Your task to perform on an android device: add a contact Image 0: 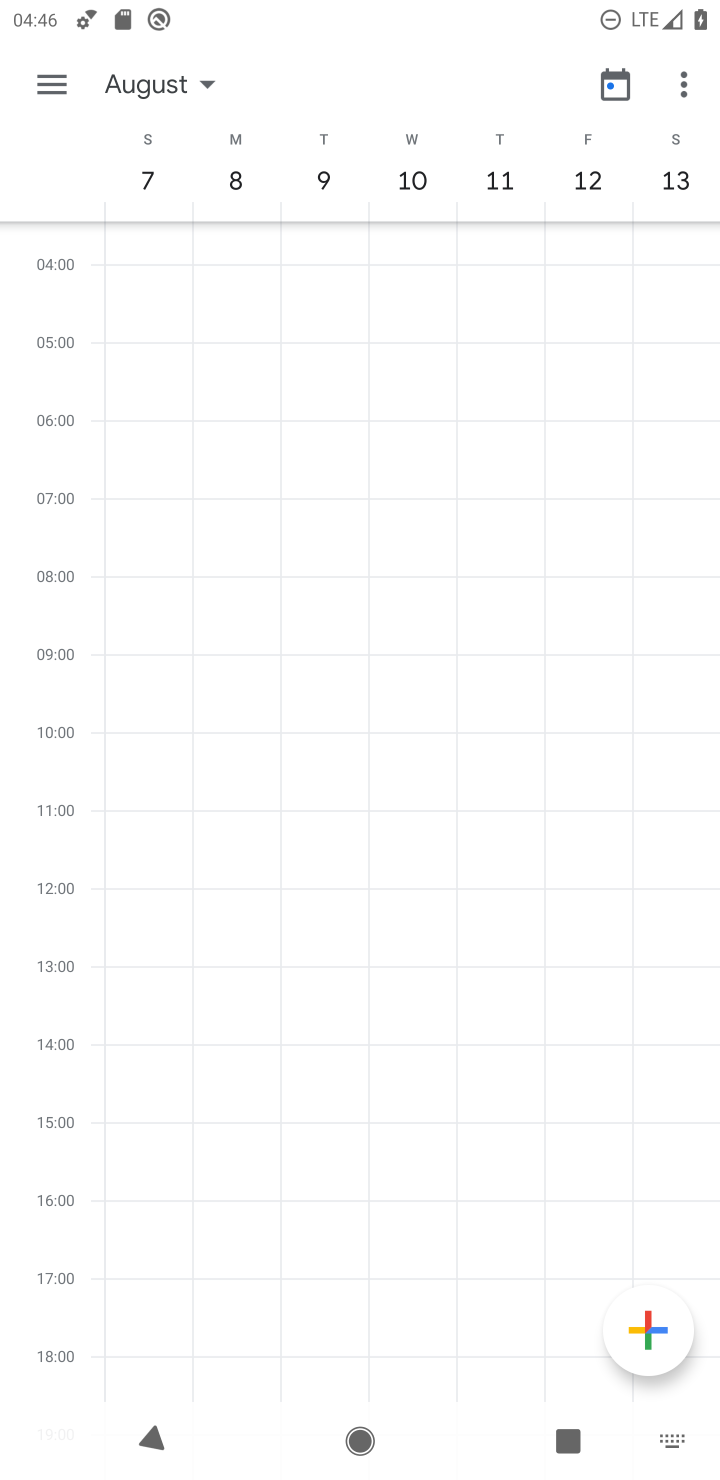
Step 0: press home button
Your task to perform on an android device: add a contact Image 1: 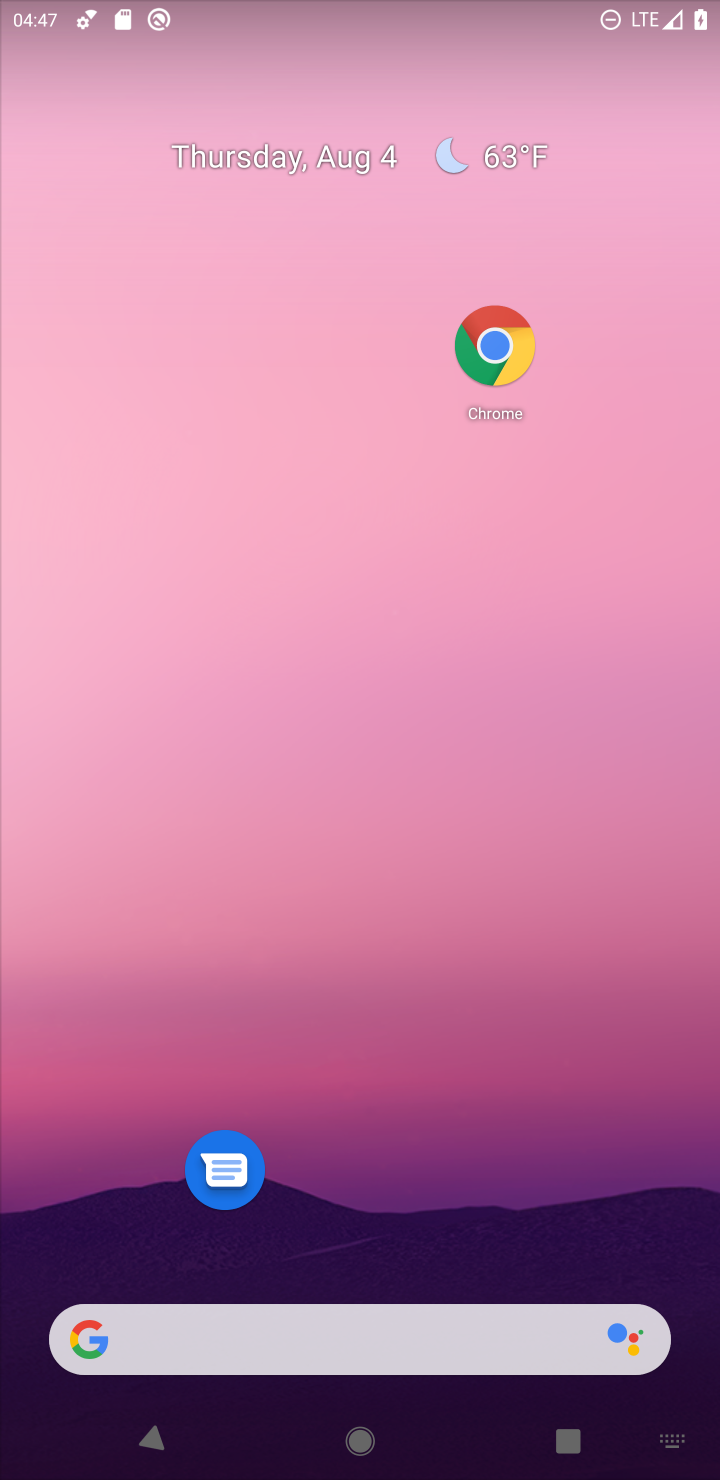
Step 1: drag from (630, 1225) to (544, 182)
Your task to perform on an android device: add a contact Image 2: 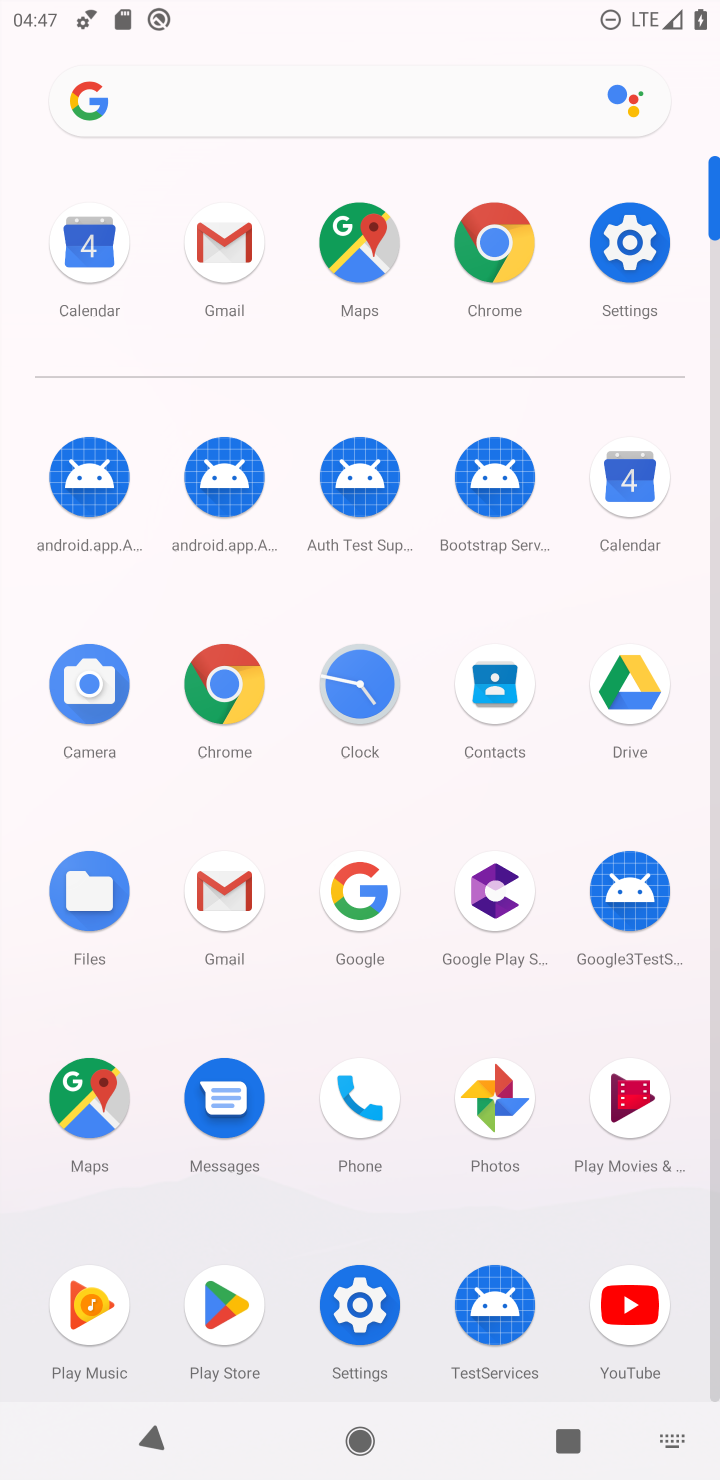
Step 2: click (507, 710)
Your task to perform on an android device: add a contact Image 3: 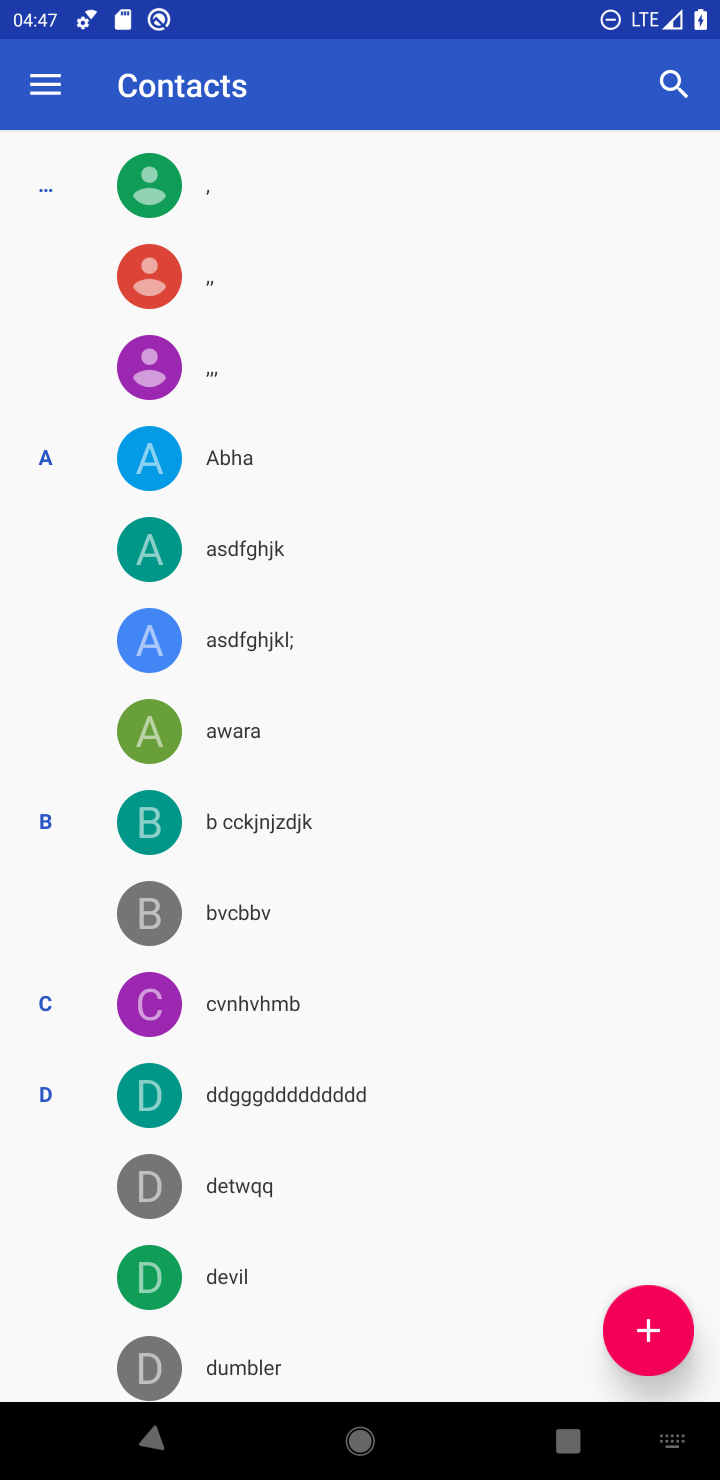
Step 3: click (650, 1331)
Your task to perform on an android device: add a contact Image 4: 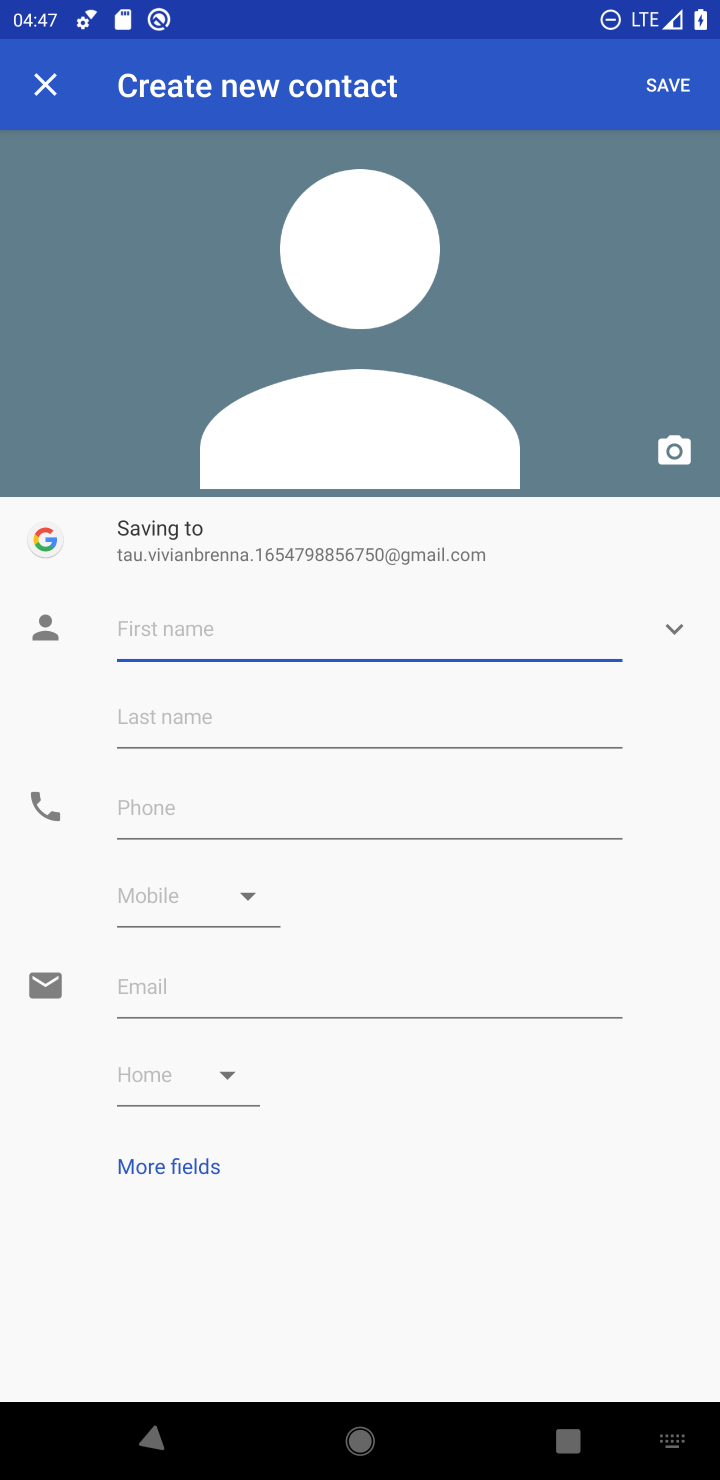
Step 4: click (320, 624)
Your task to perform on an android device: add a contact Image 5: 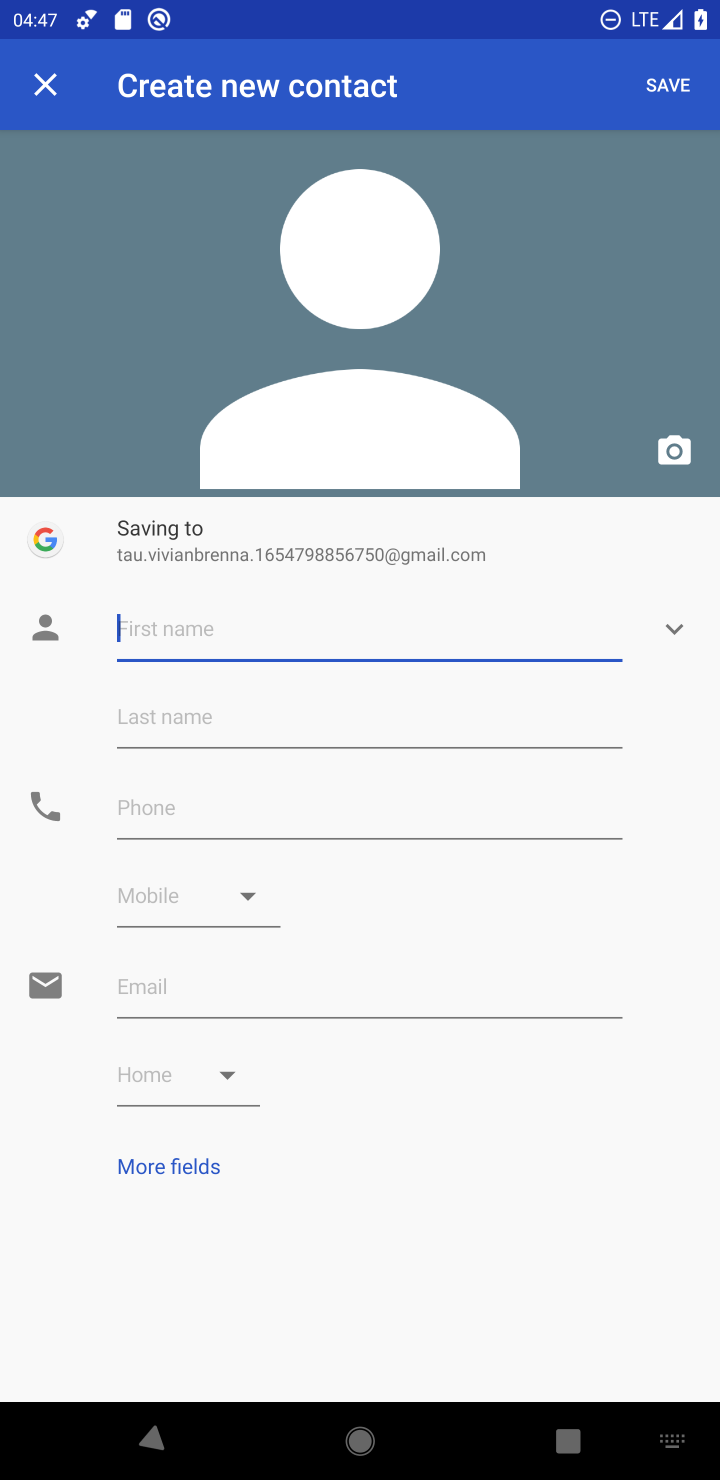
Step 5: type "gghc"
Your task to perform on an android device: add a contact Image 6: 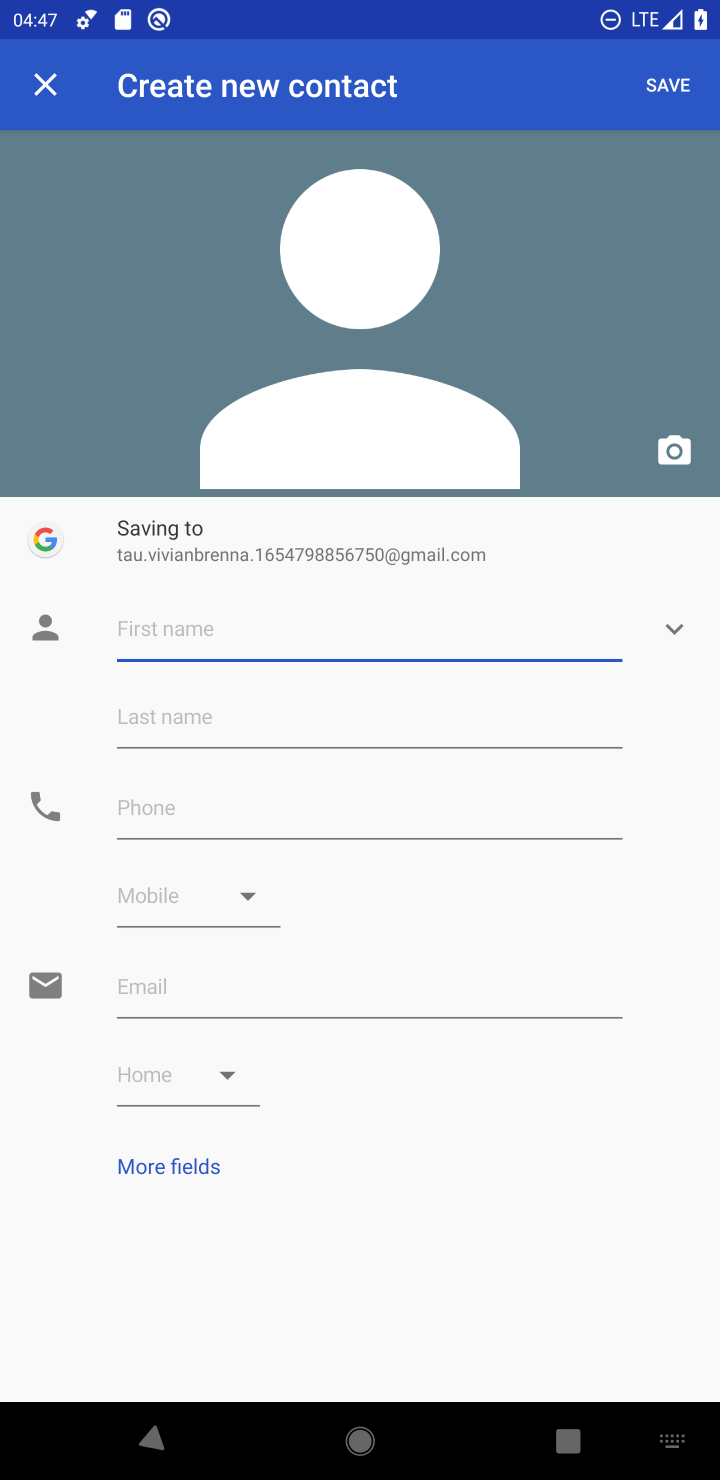
Step 6: click (562, 826)
Your task to perform on an android device: add a contact Image 7: 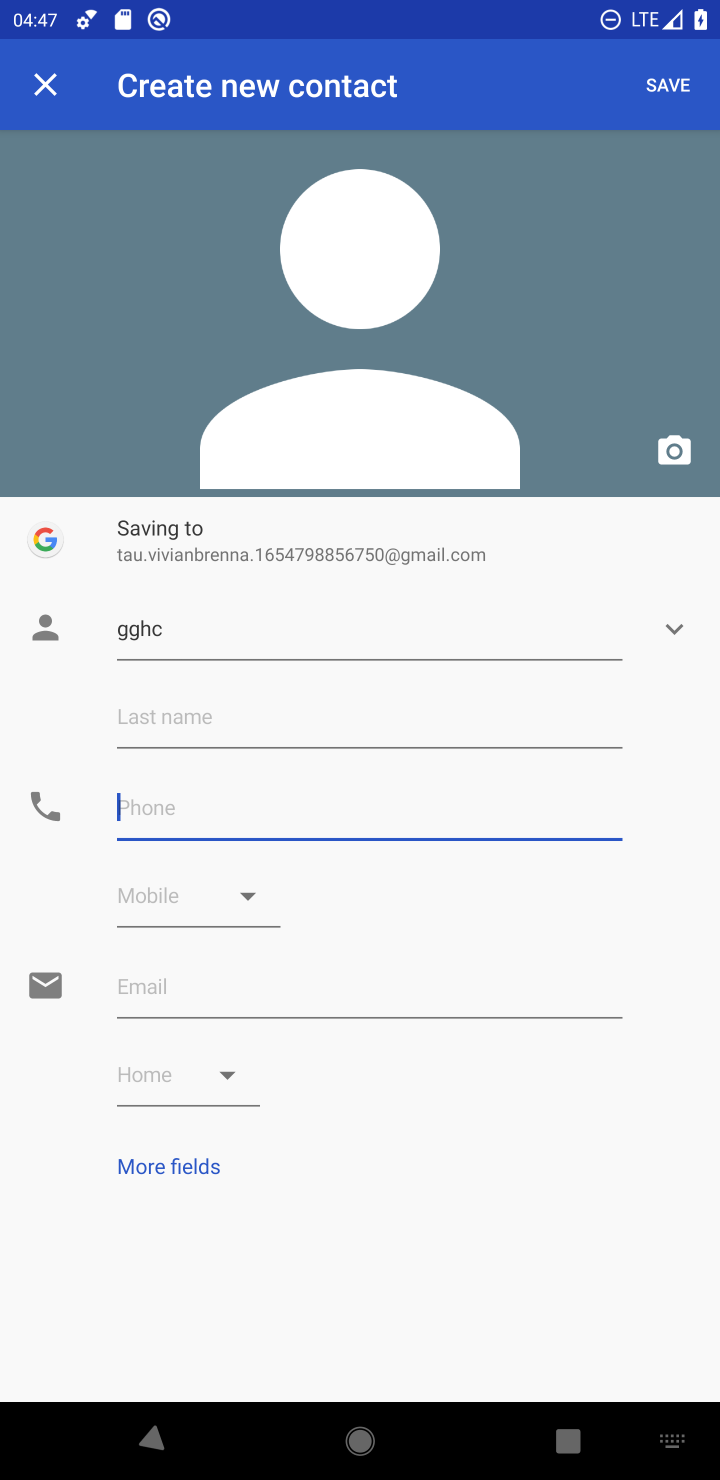
Step 7: type "678"
Your task to perform on an android device: add a contact Image 8: 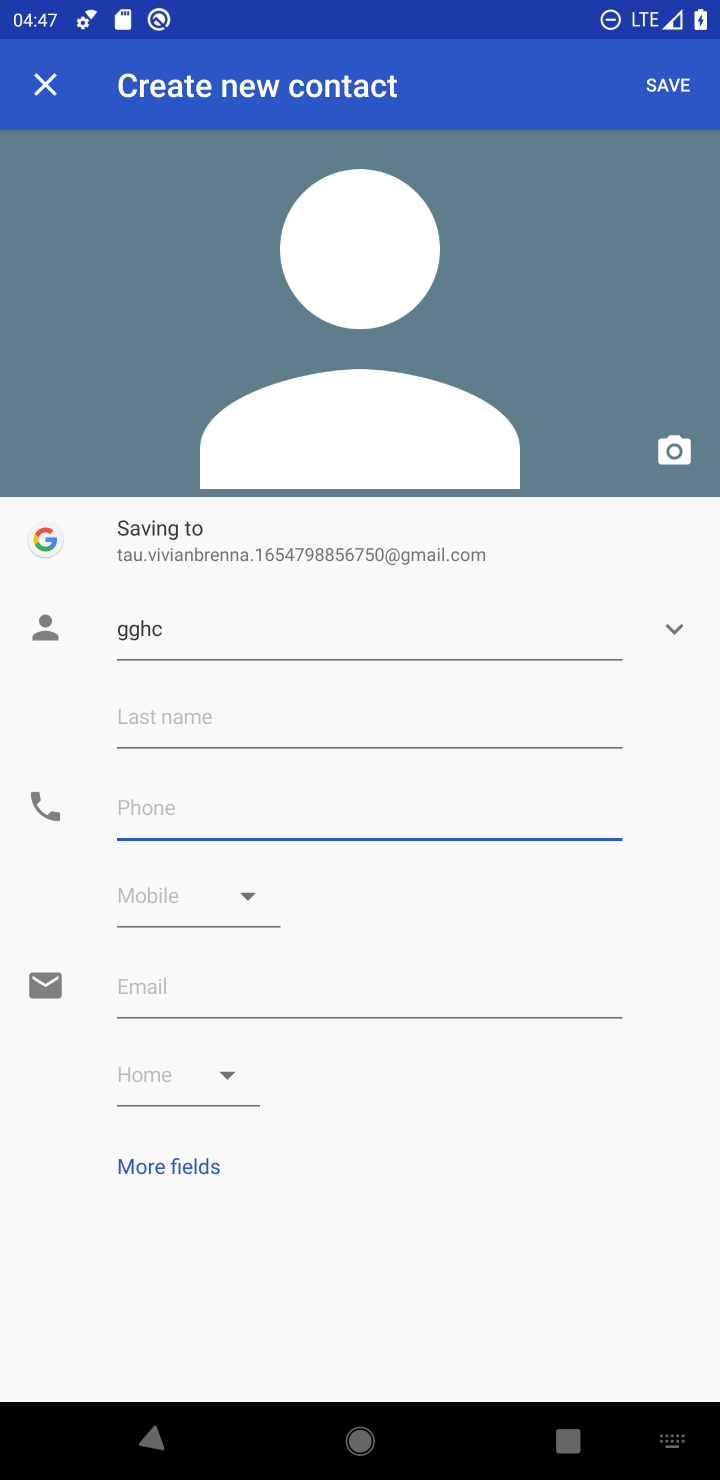
Step 8: click (679, 1129)
Your task to perform on an android device: add a contact Image 9: 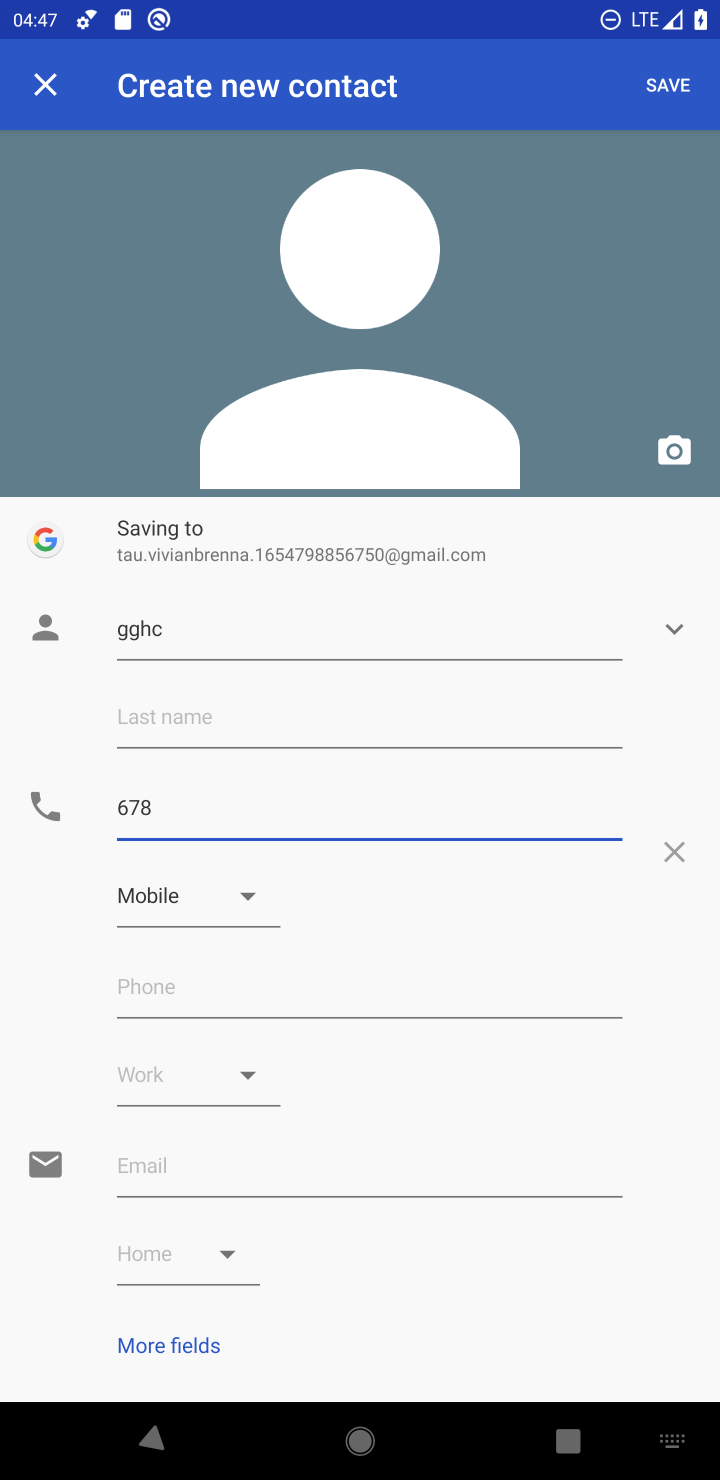
Step 9: click (680, 84)
Your task to perform on an android device: add a contact Image 10: 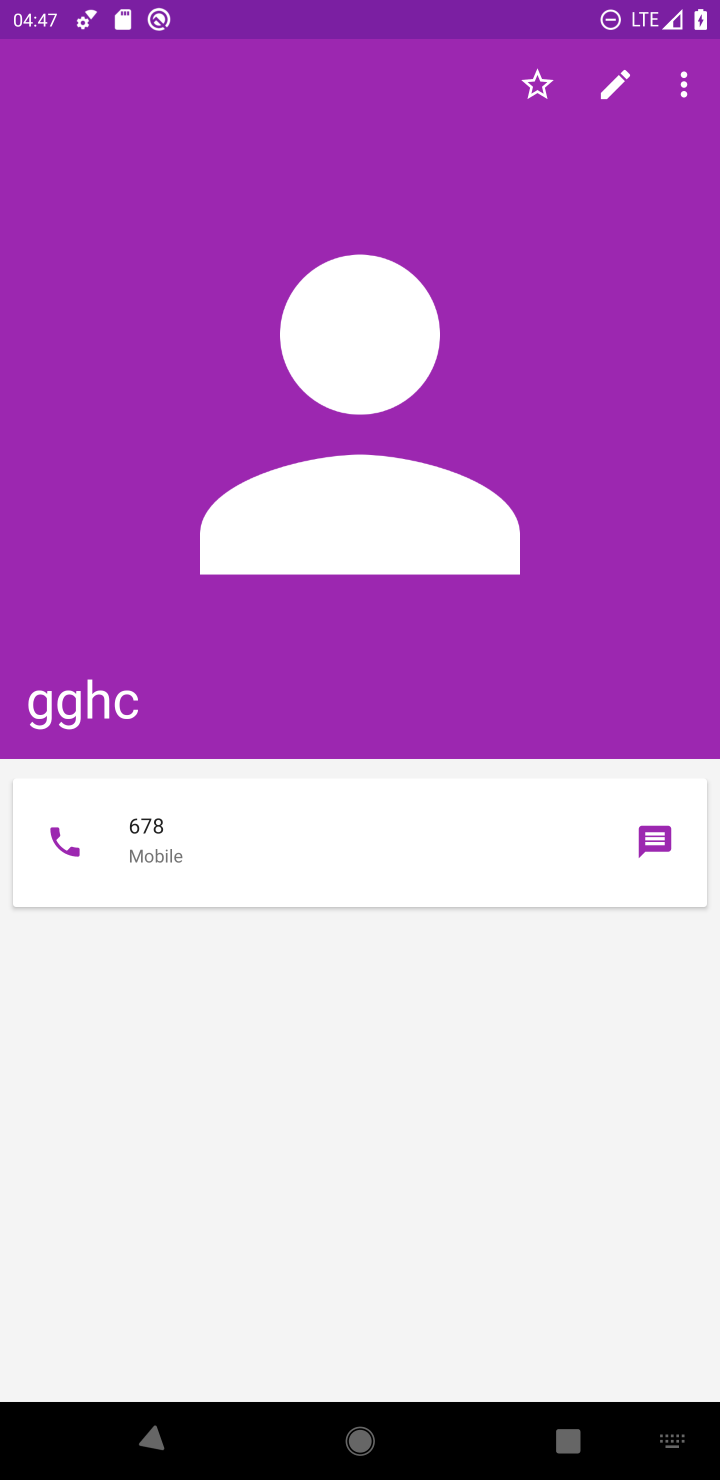
Step 10: task complete